Your task to perform on an android device: turn on priority inbox in the gmail app Image 0: 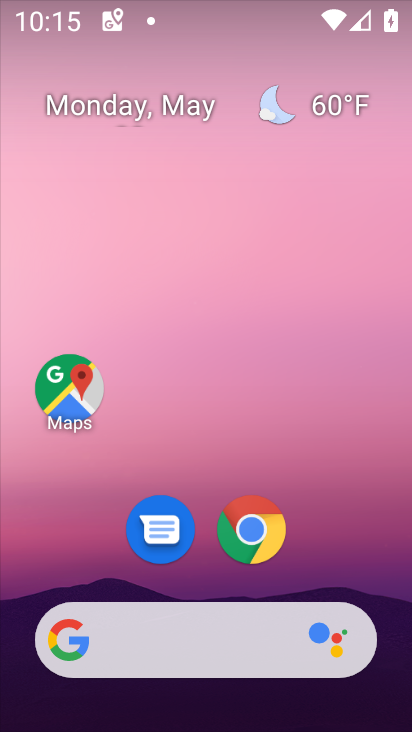
Step 0: drag from (314, 565) to (243, 3)
Your task to perform on an android device: turn on priority inbox in the gmail app Image 1: 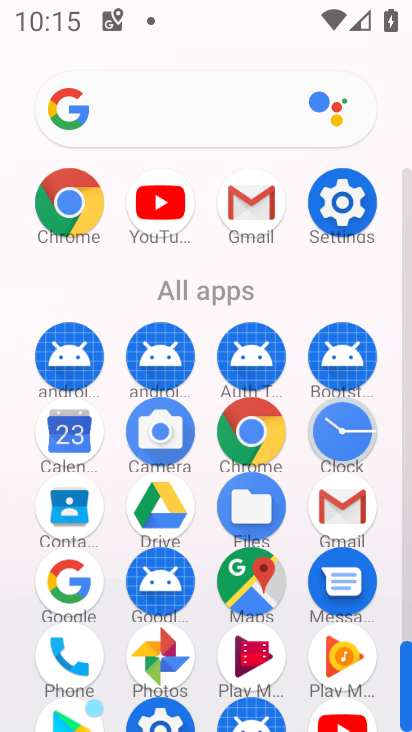
Step 1: click (262, 210)
Your task to perform on an android device: turn on priority inbox in the gmail app Image 2: 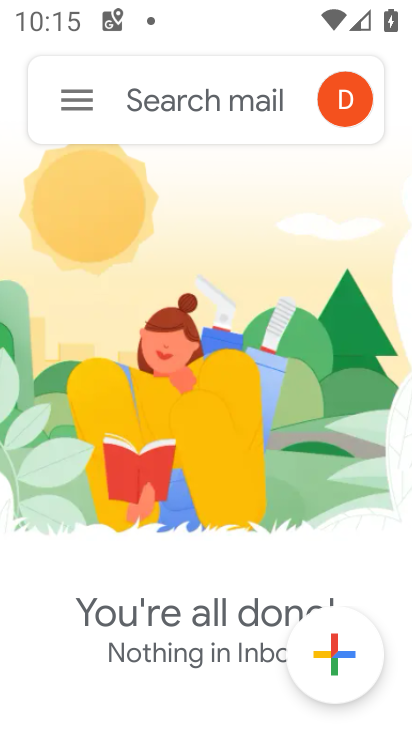
Step 2: click (68, 99)
Your task to perform on an android device: turn on priority inbox in the gmail app Image 3: 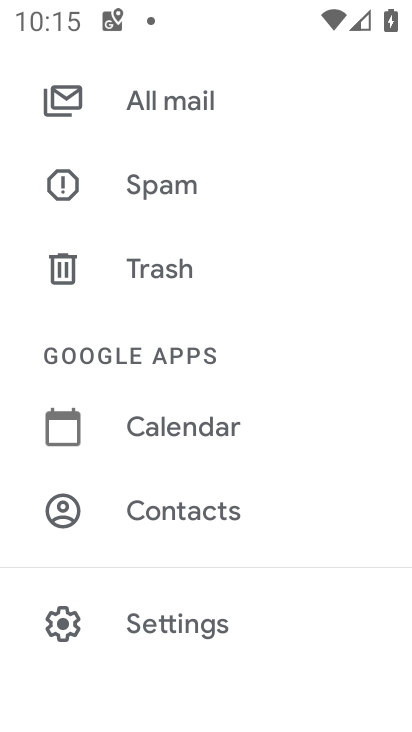
Step 3: click (208, 629)
Your task to perform on an android device: turn on priority inbox in the gmail app Image 4: 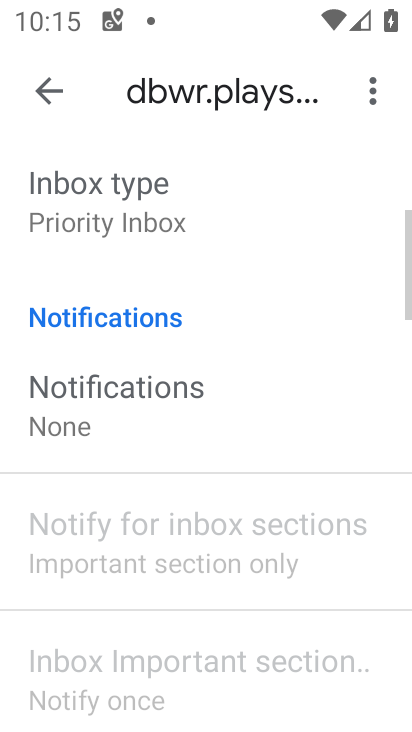
Step 4: click (113, 214)
Your task to perform on an android device: turn on priority inbox in the gmail app Image 5: 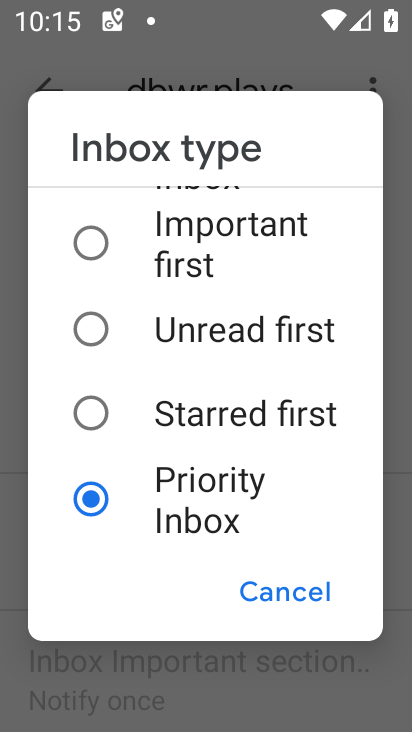
Step 5: task complete